Your task to perform on an android device: find snoozed emails in the gmail app Image 0: 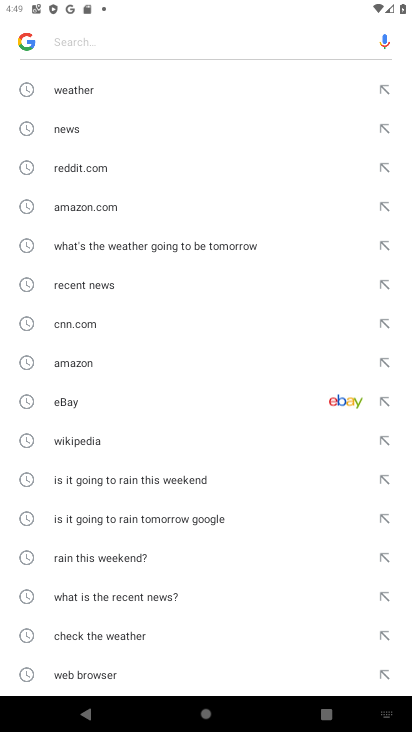
Step 0: press home button
Your task to perform on an android device: find snoozed emails in the gmail app Image 1: 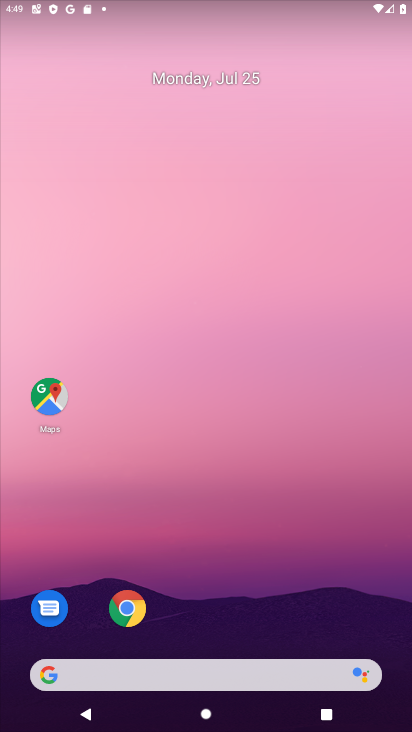
Step 1: drag from (204, 635) to (249, 57)
Your task to perform on an android device: find snoozed emails in the gmail app Image 2: 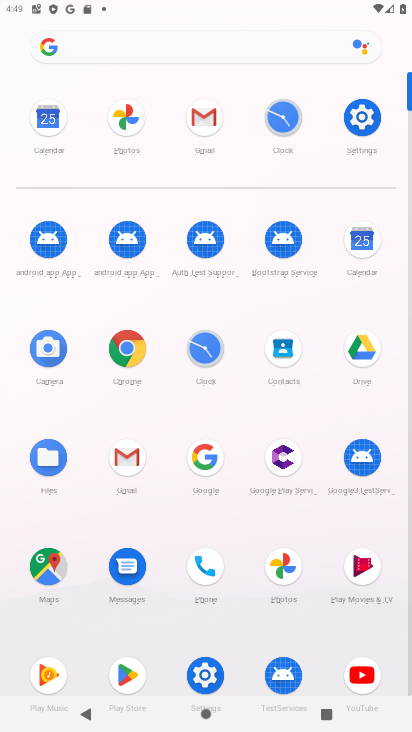
Step 2: click (125, 458)
Your task to perform on an android device: find snoozed emails in the gmail app Image 3: 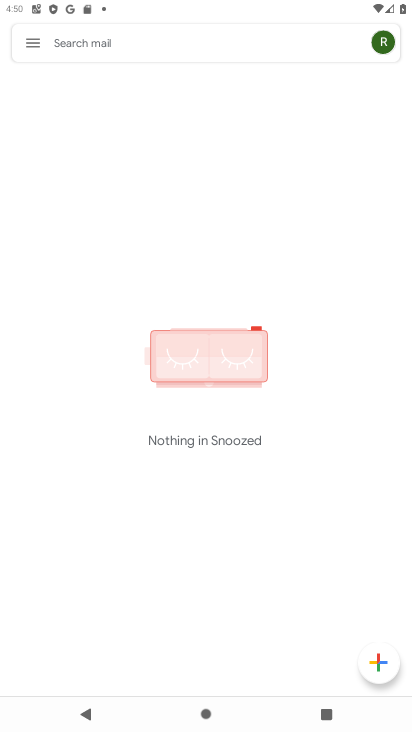
Step 3: task complete